Your task to perform on an android device: change the upload size in google photos Image 0: 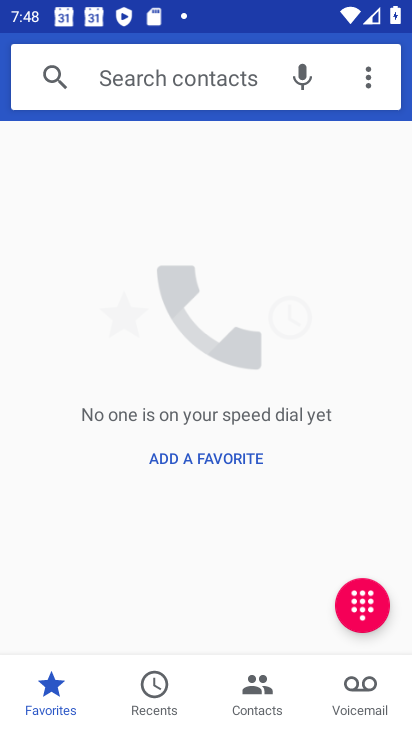
Step 0: press home button
Your task to perform on an android device: change the upload size in google photos Image 1: 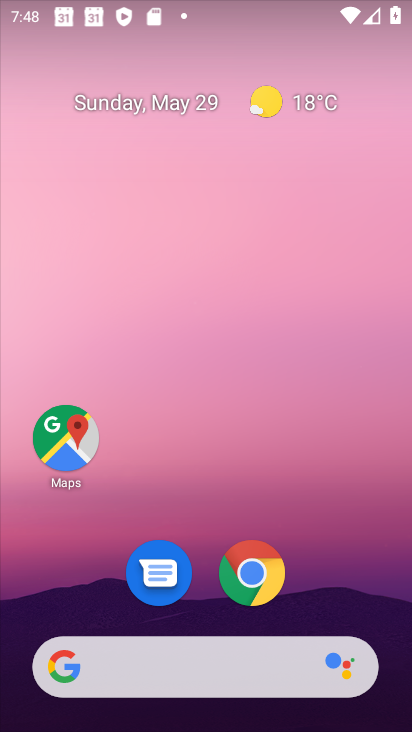
Step 1: drag from (64, 608) to (204, 160)
Your task to perform on an android device: change the upload size in google photos Image 2: 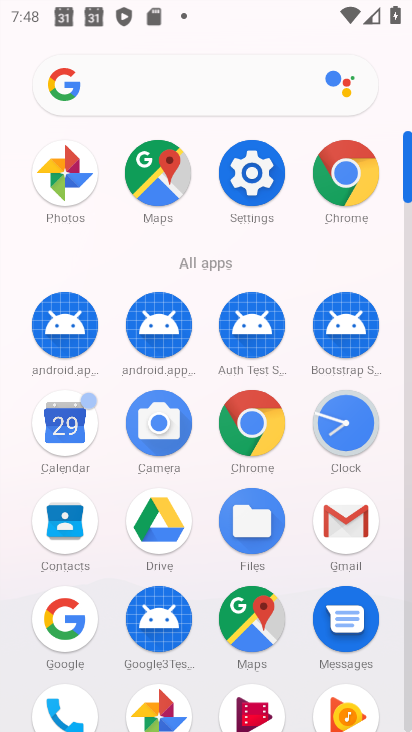
Step 2: click (180, 703)
Your task to perform on an android device: change the upload size in google photos Image 3: 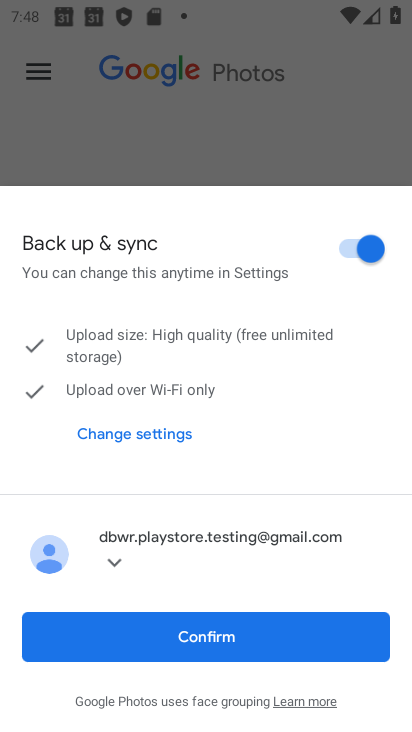
Step 3: click (288, 646)
Your task to perform on an android device: change the upload size in google photos Image 4: 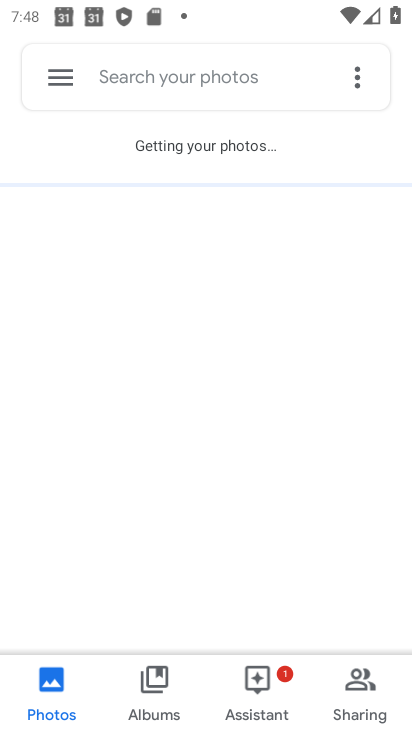
Step 4: click (53, 78)
Your task to perform on an android device: change the upload size in google photos Image 5: 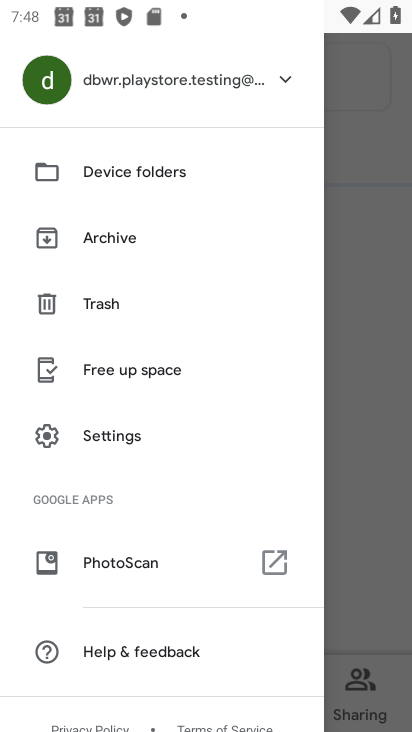
Step 5: drag from (96, 686) to (230, 78)
Your task to perform on an android device: change the upload size in google photos Image 6: 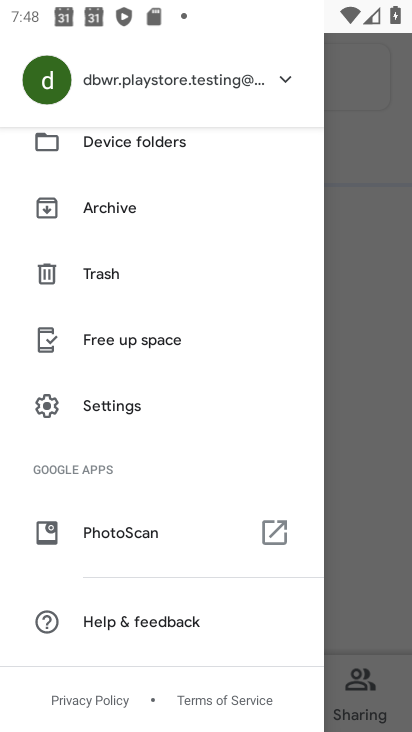
Step 6: click (152, 397)
Your task to perform on an android device: change the upload size in google photos Image 7: 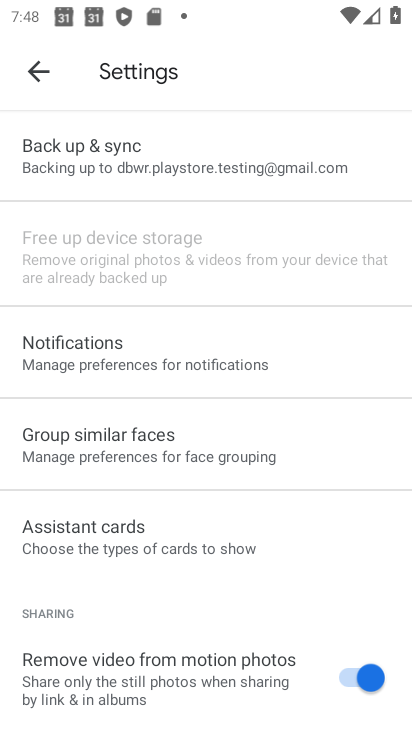
Step 7: click (149, 158)
Your task to perform on an android device: change the upload size in google photos Image 8: 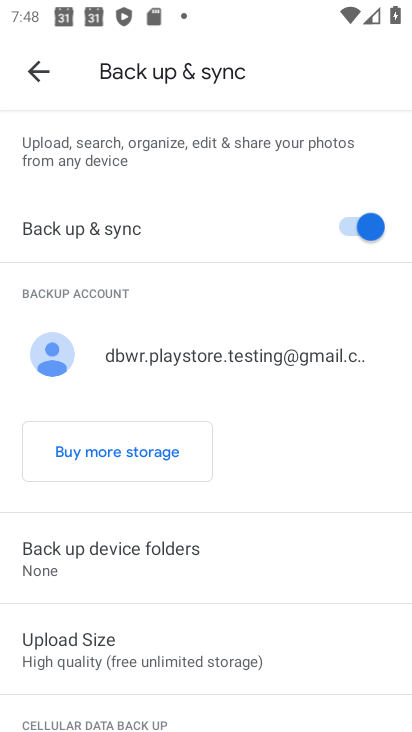
Step 8: drag from (120, 608) to (244, 232)
Your task to perform on an android device: change the upload size in google photos Image 9: 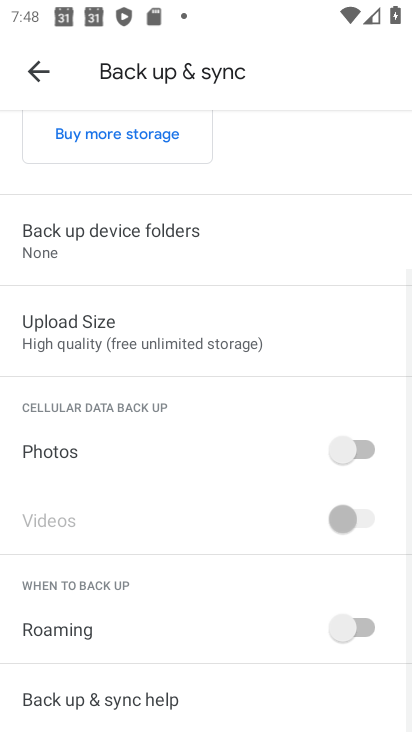
Step 9: click (194, 323)
Your task to perform on an android device: change the upload size in google photos Image 10: 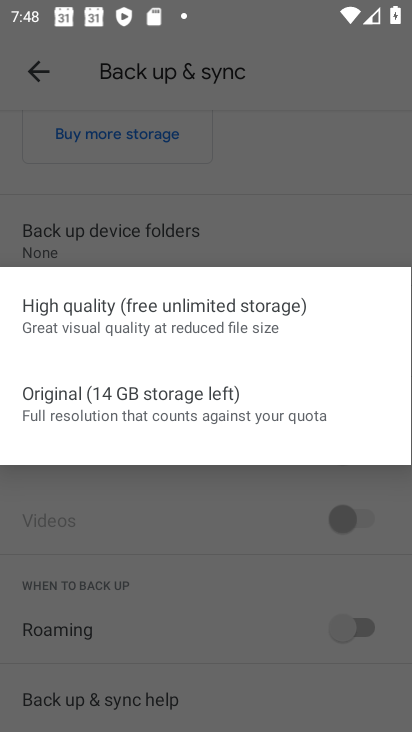
Step 10: click (192, 398)
Your task to perform on an android device: change the upload size in google photos Image 11: 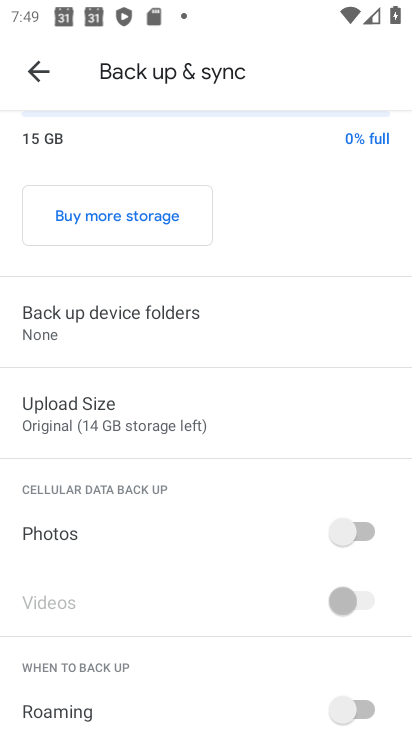
Step 11: task complete